Your task to perform on an android device: open app "Booking.com: Hotels and more" (install if not already installed) and enter user name: "misting@outlook.com" and password: "blandly" Image 0: 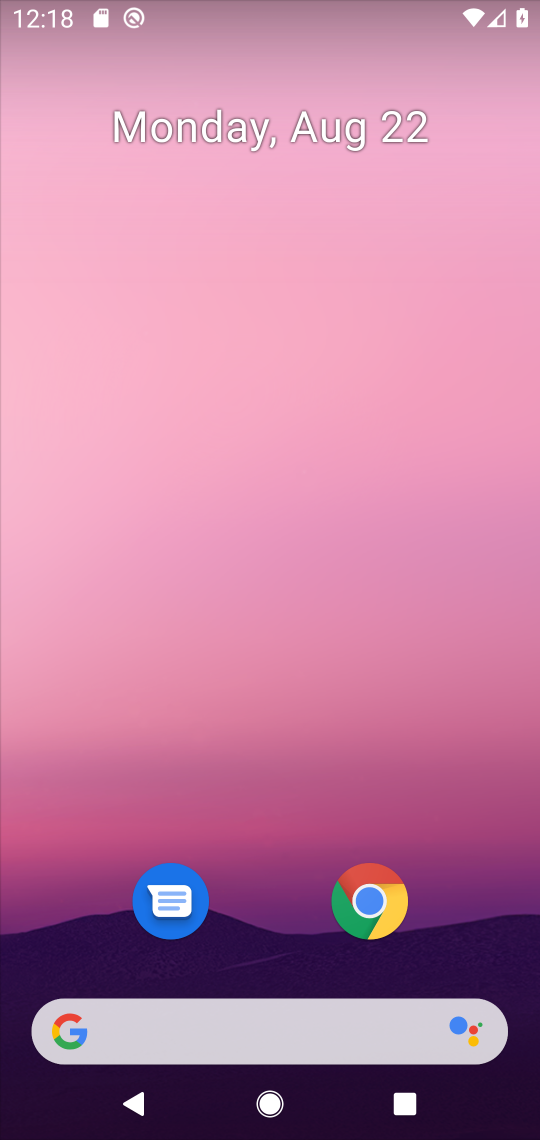
Step 0: drag from (246, 991) to (204, 111)
Your task to perform on an android device: open app "Booking.com: Hotels and more" (install if not already installed) and enter user name: "misting@outlook.com" and password: "blandly" Image 1: 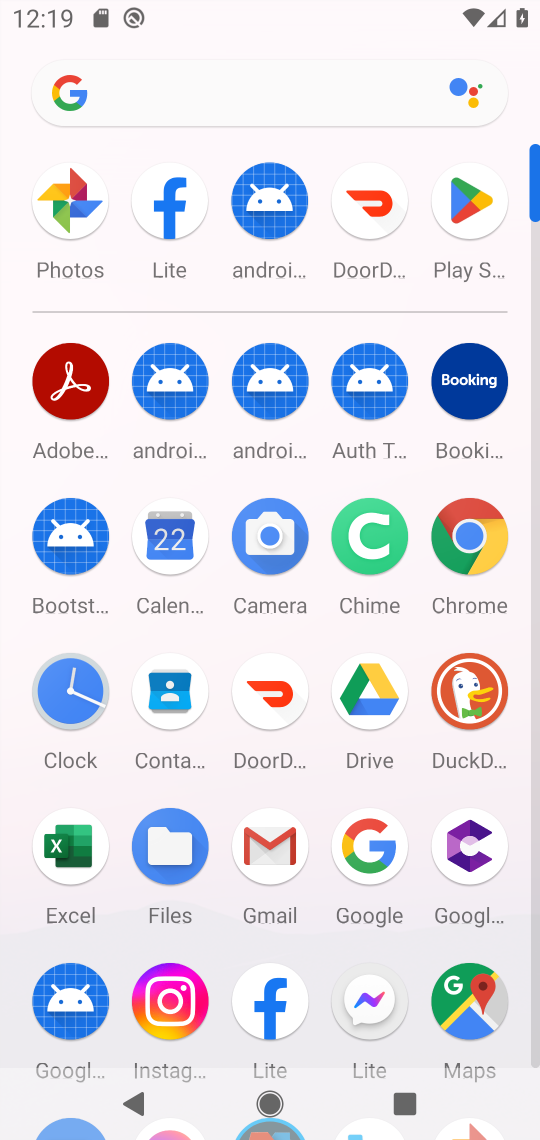
Step 1: click (452, 236)
Your task to perform on an android device: open app "Booking.com: Hotels and more" (install if not already installed) and enter user name: "misting@outlook.com" and password: "blandly" Image 2: 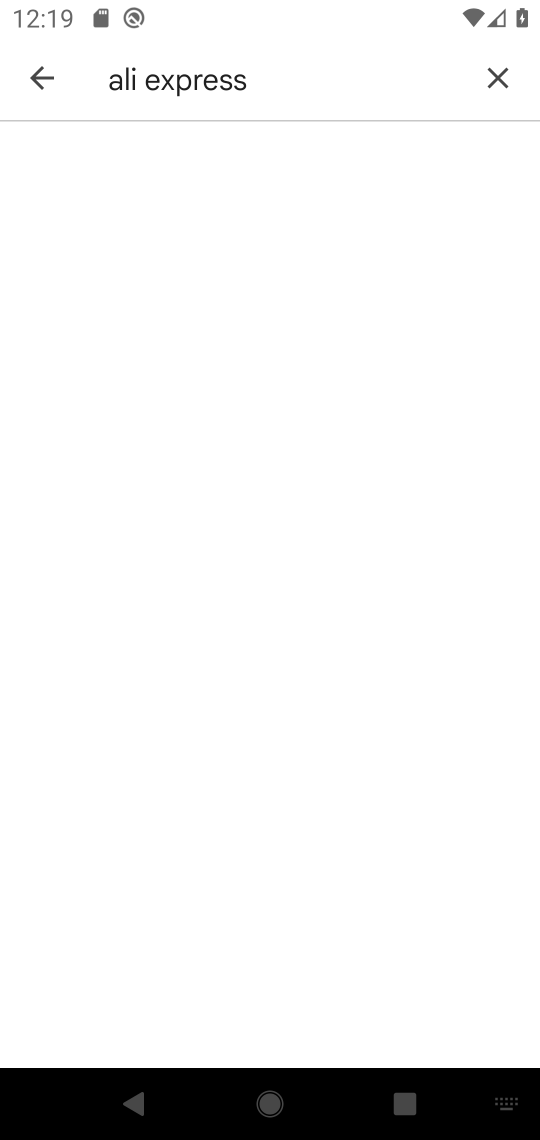
Step 2: click (507, 96)
Your task to perform on an android device: open app "Booking.com: Hotels and more" (install if not already installed) and enter user name: "misting@outlook.com" and password: "blandly" Image 3: 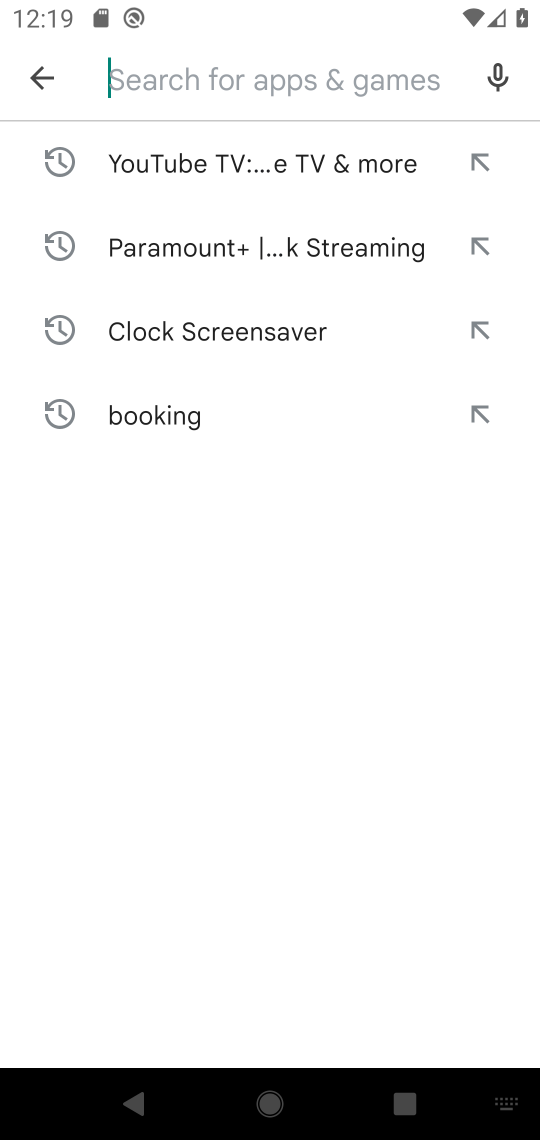
Step 3: type "booking "
Your task to perform on an android device: open app "Booking.com: Hotels and more" (install if not already installed) and enter user name: "misting@outlook.com" and password: "blandly" Image 4: 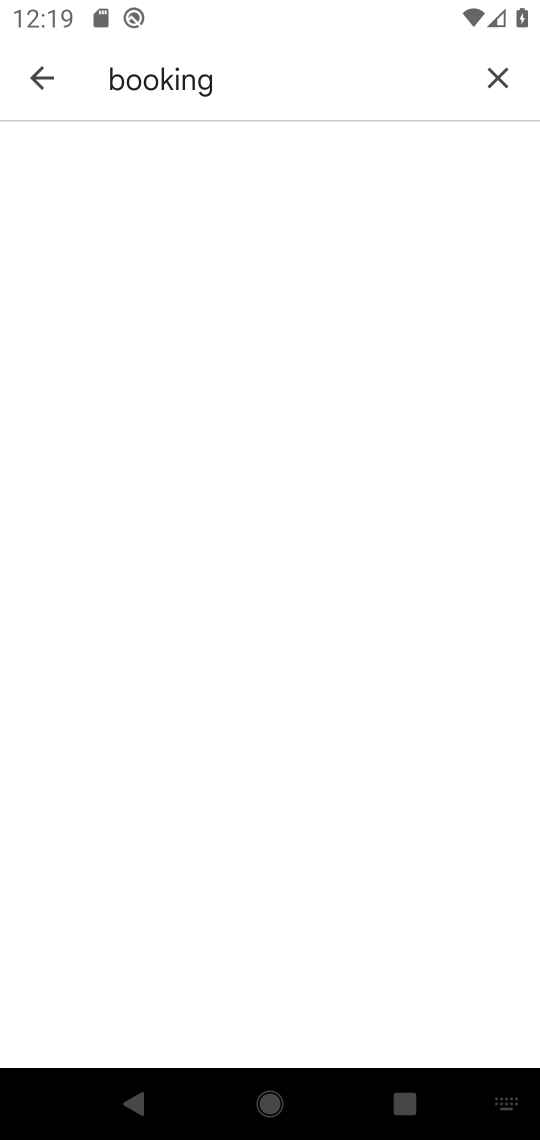
Step 4: click (503, 89)
Your task to perform on an android device: open app "Booking.com: Hotels and more" (install if not already installed) and enter user name: "misting@outlook.com" and password: "blandly" Image 5: 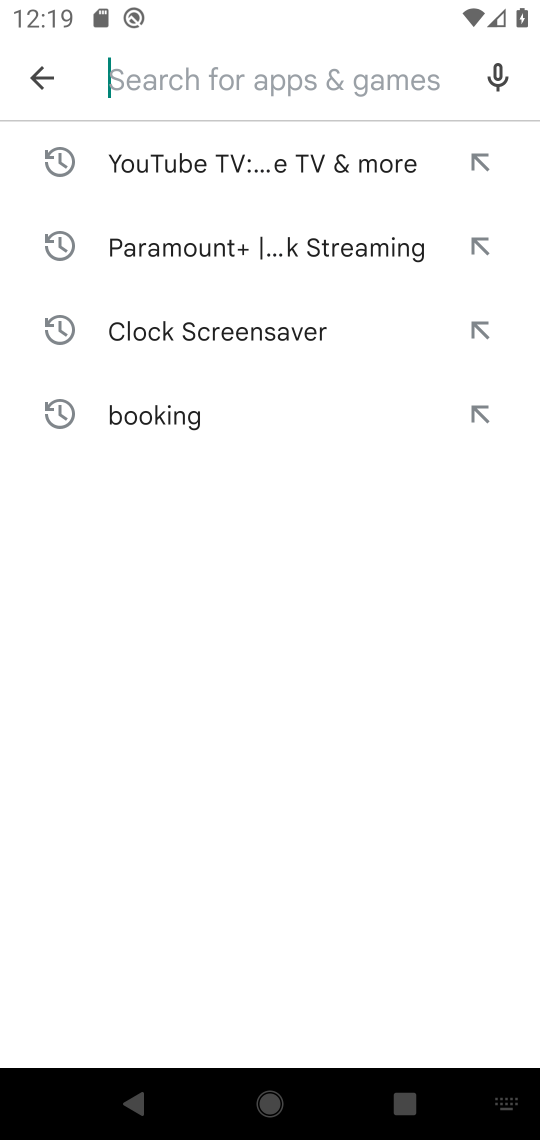
Step 5: type "booking"
Your task to perform on an android device: open app "Booking.com: Hotels and more" (install if not already installed) and enter user name: "misting@outlook.com" and password: "blandly" Image 6: 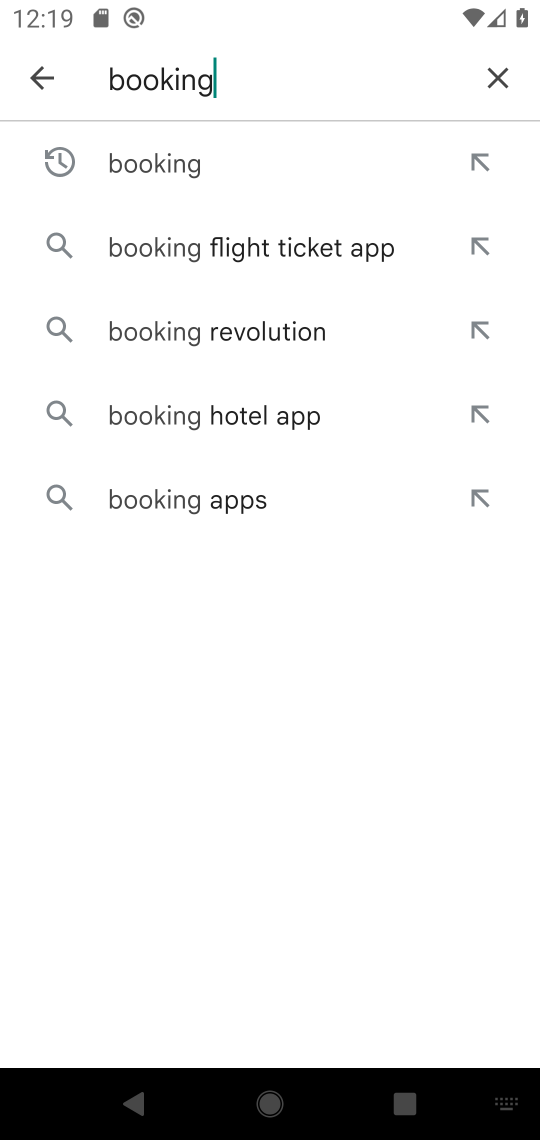
Step 6: click (251, 176)
Your task to perform on an android device: open app "Booking.com: Hotels and more" (install if not already installed) and enter user name: "misting@outlook.com" and password: "blandly" Image 7: 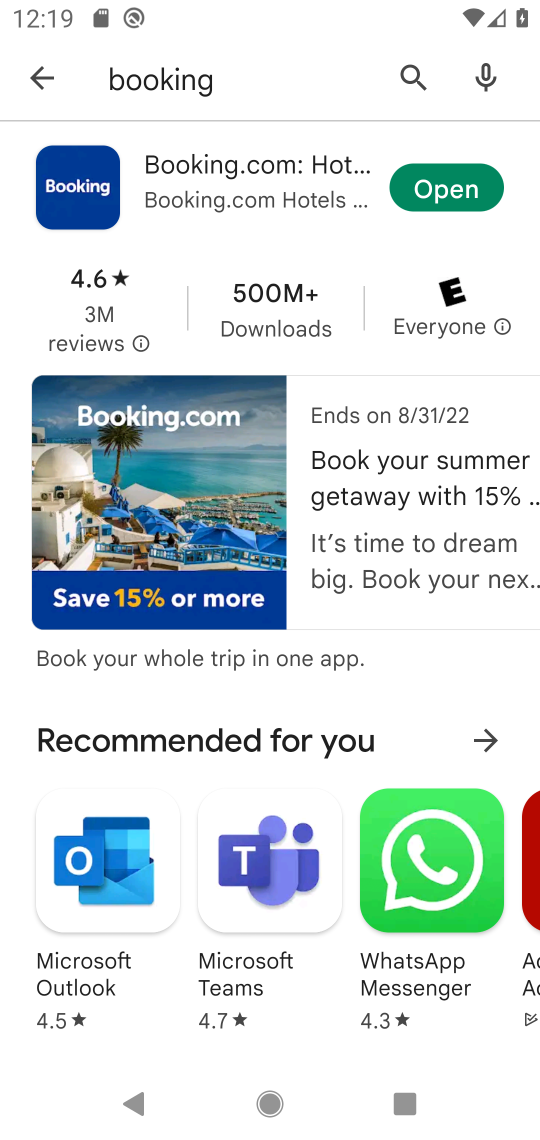
Step 7: click (471, 178)
Your task to perform on an android device: open app "Booking.com: Hotels and more" (install if not already installed) and enter user name: "misting@outlook.com" and password: "blandly" Image 8: 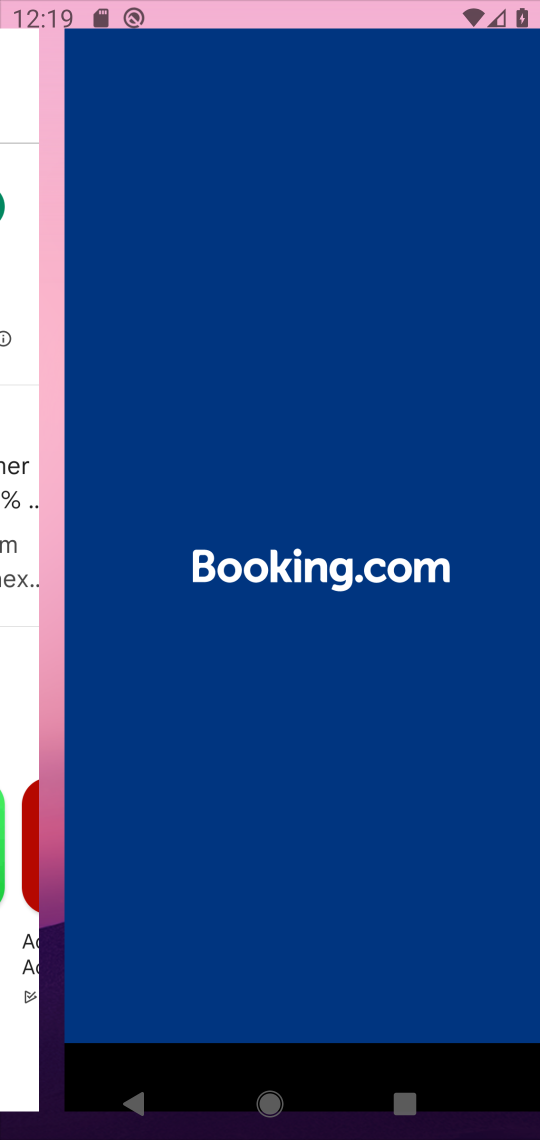
Step 8: task complete